Your task to perform on an android device: turn off javascript in the chrome app Image 0: 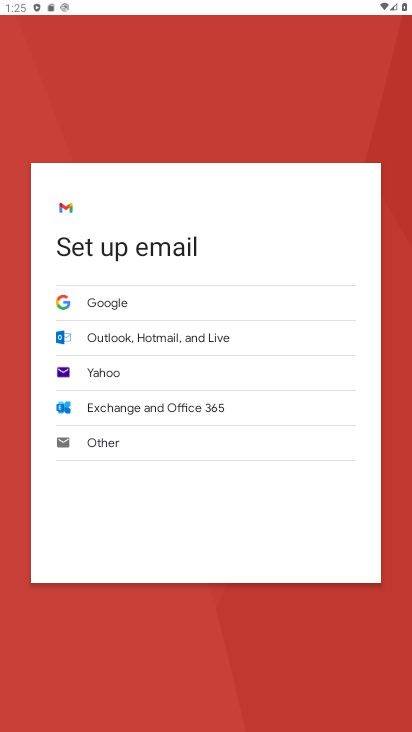
Step 0: task complete